Your task to perform on an android device: Go to Wikipedia Image 0: 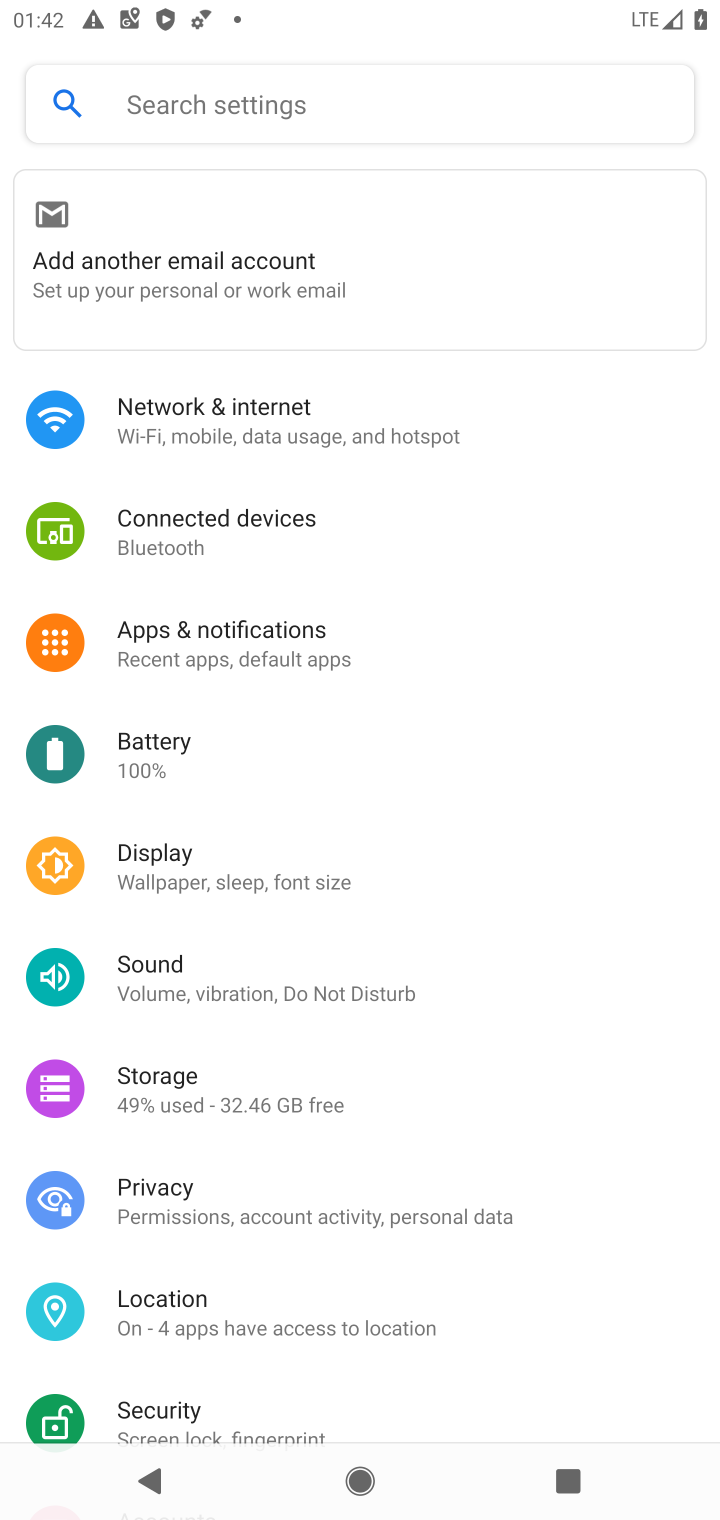
Step 0: press home button
Your task to perform on an android device: Go to Wikipedia Image 1: 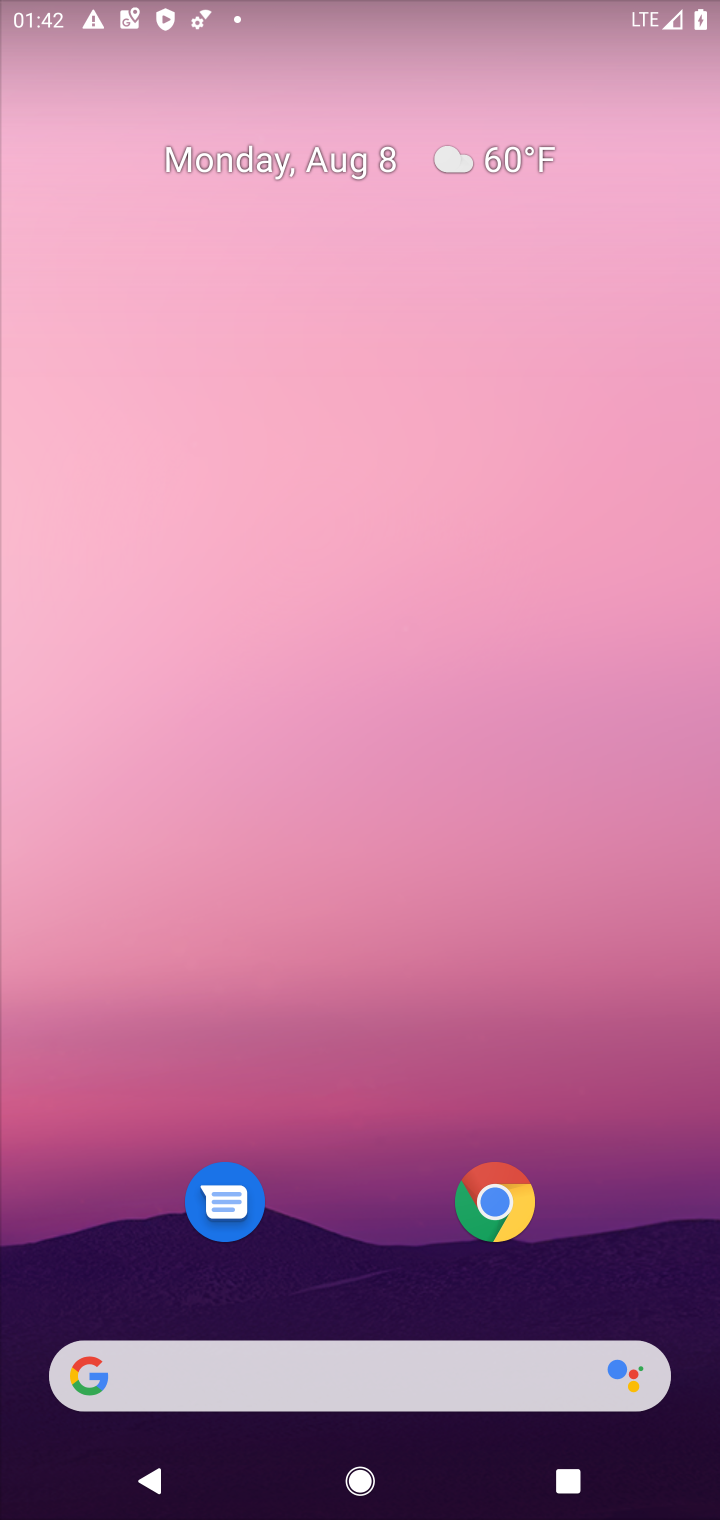
Step 1: click (489, 1198)
Your task to perform on an android device: Go to Wikipedia Image 2: 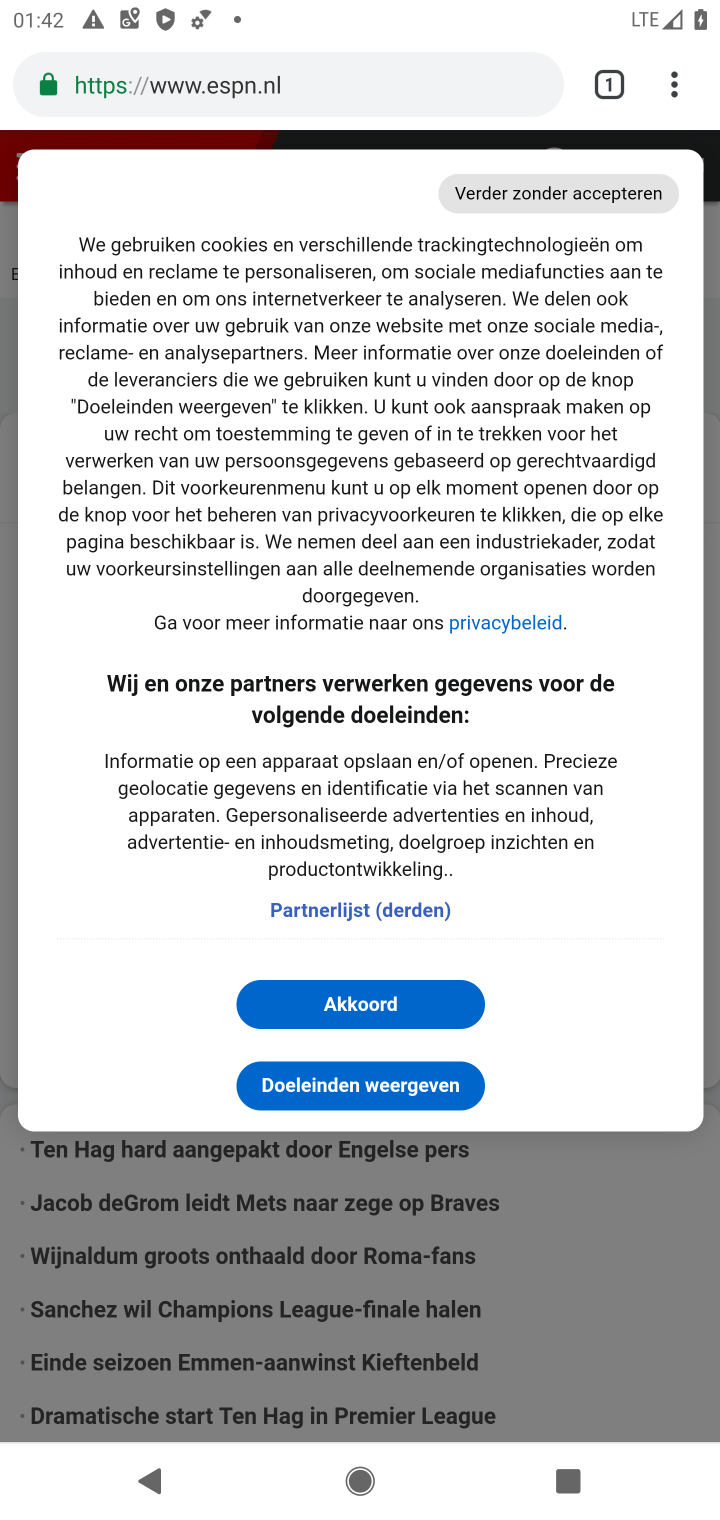
Step 2: click (356, 167)
Your task to perform on an android device: Go to Wikipedia Image 3: 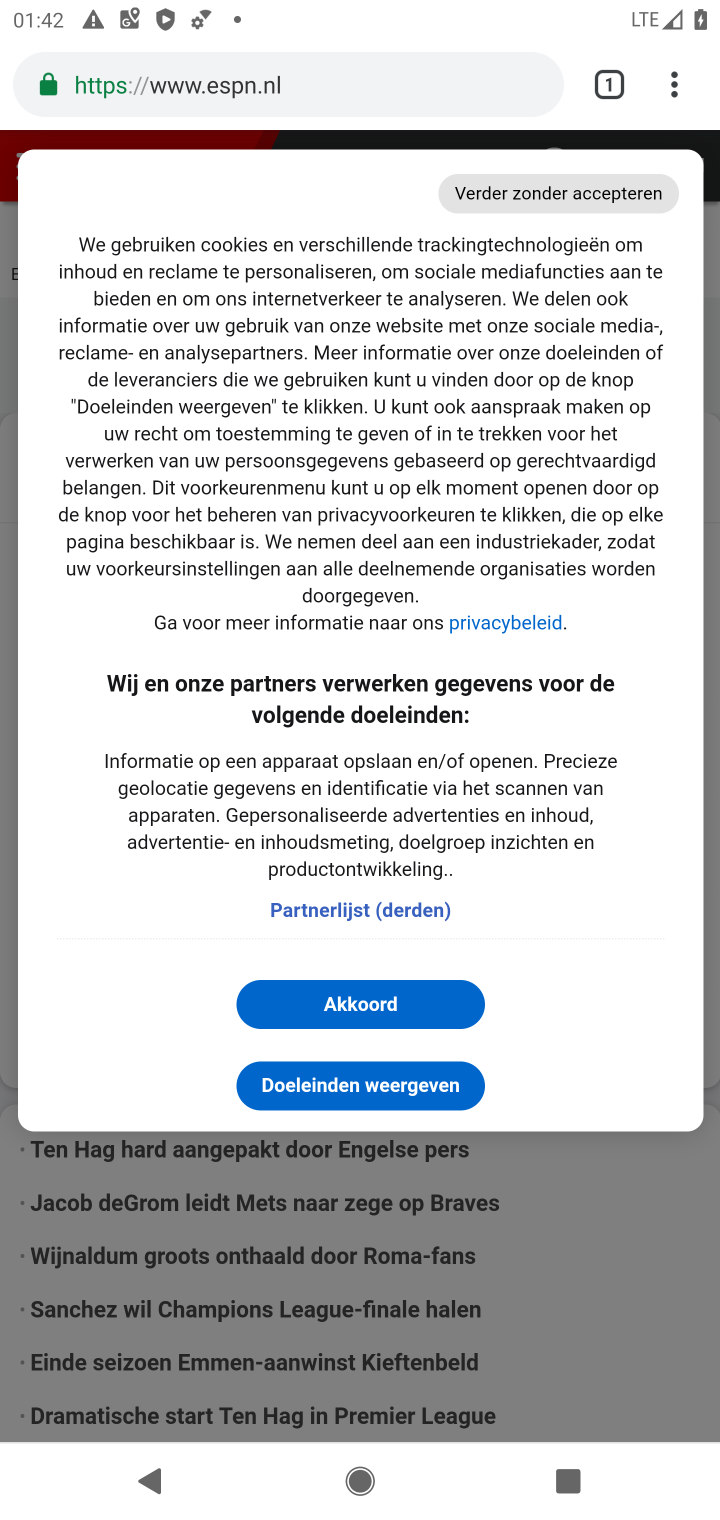
Step 3: click (264, 67)
Your task to perform on an android device: Go to Wikipedia Image 4: 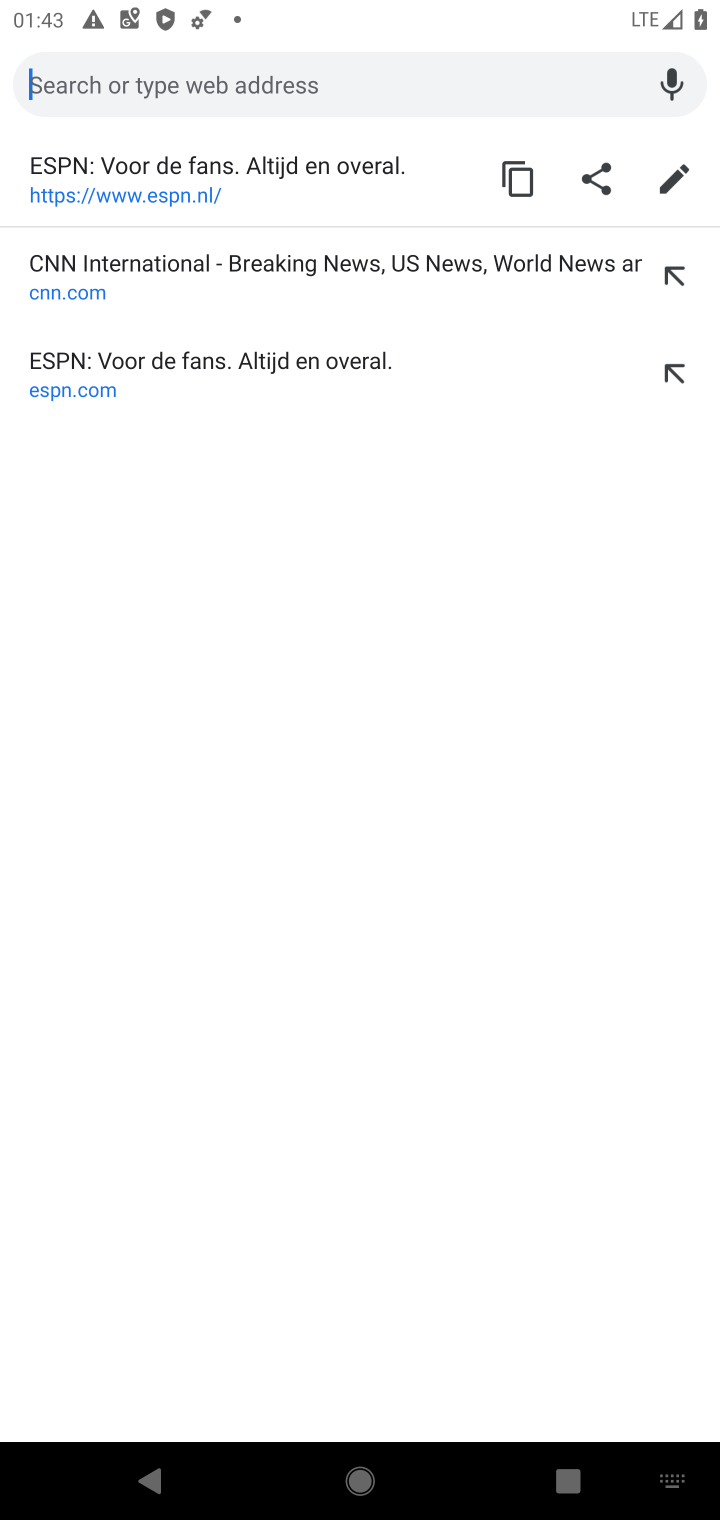
Step 4: type "Wikipedia"
Your task to perform on an android device: Go to Wikipedia Image 5: 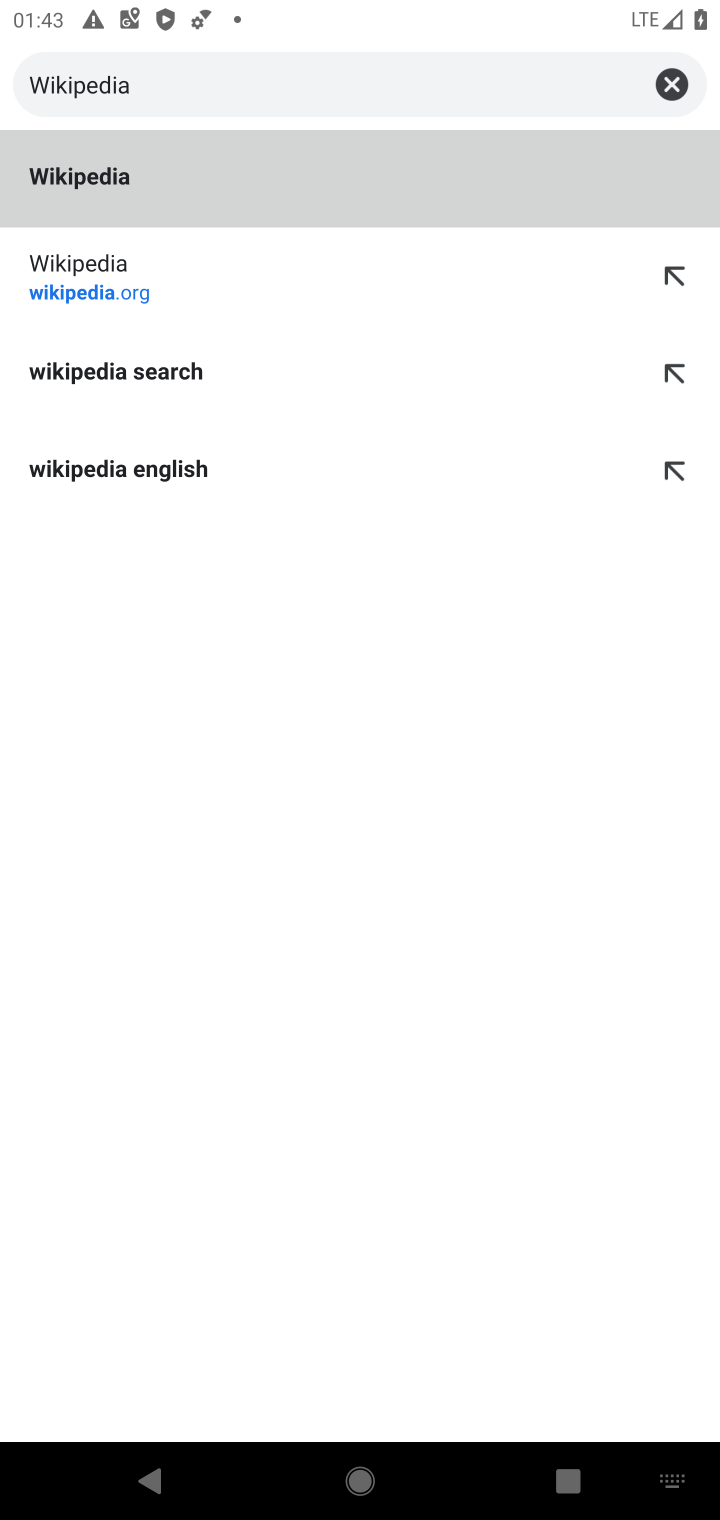
Step 5: click (73, 254)
Your task to perform on an android device: Go to Wikipedia Image 6: 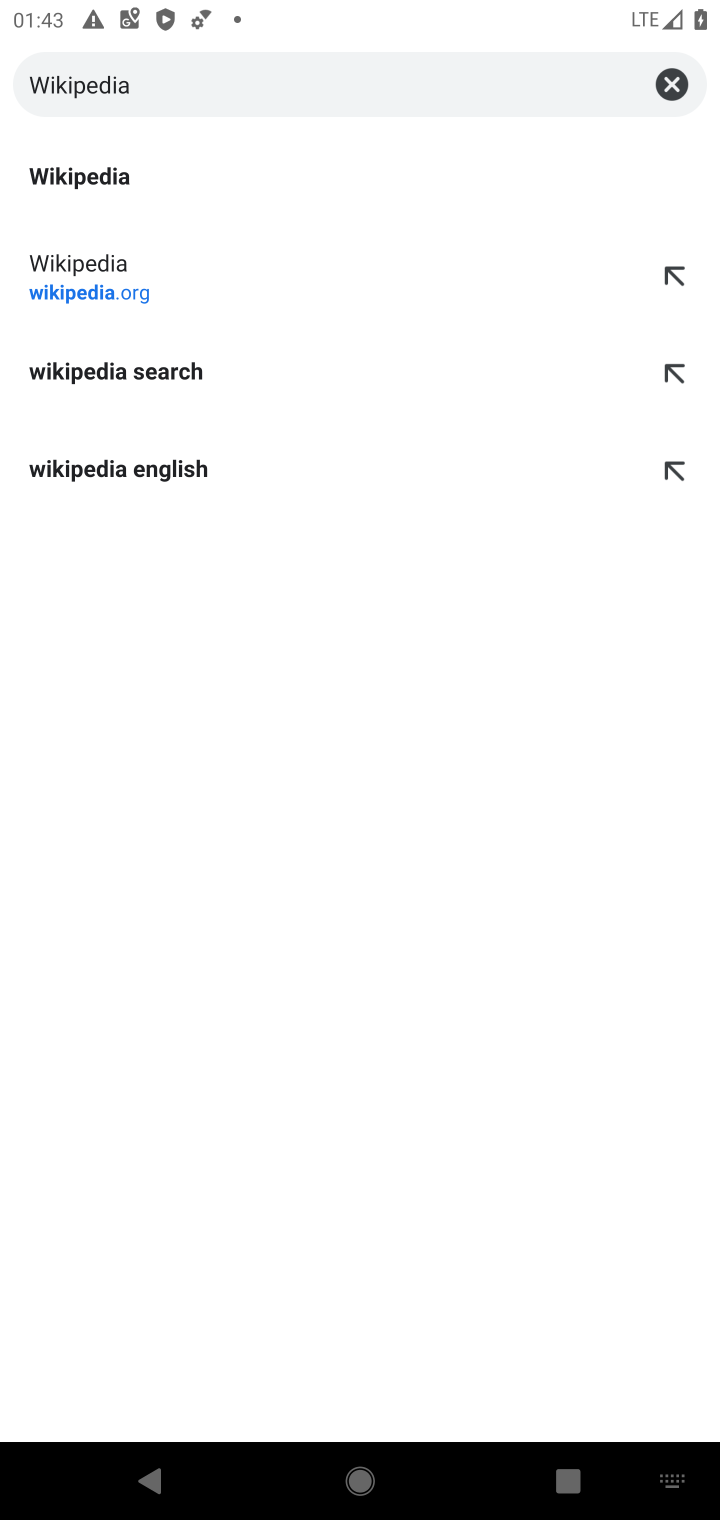
Step 6: click (73, 254)
Your task to perform on an android device: Go to Wikipedia Image 7: 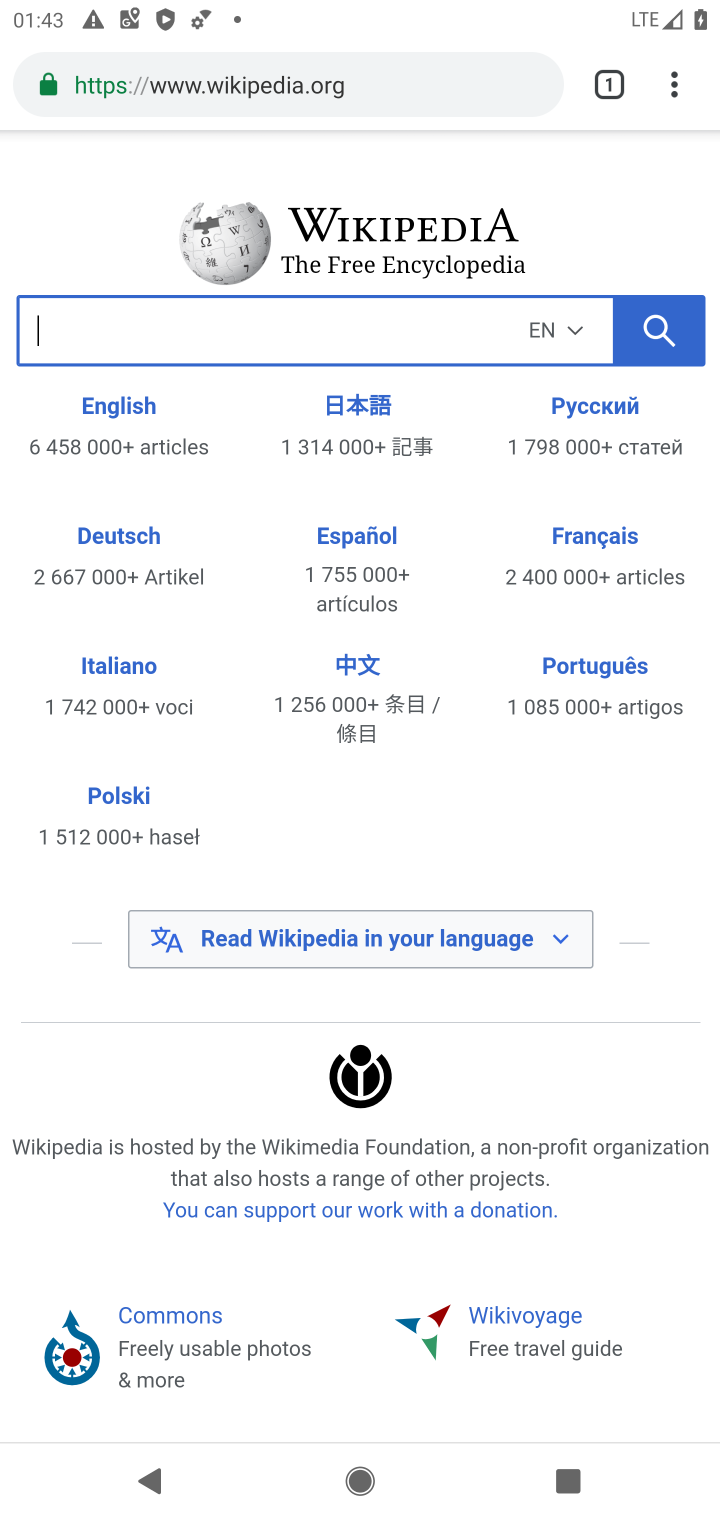
Step 7: task complete